Your task to perform on an android device: remove spam from my inbox in the gmail app Image 0: 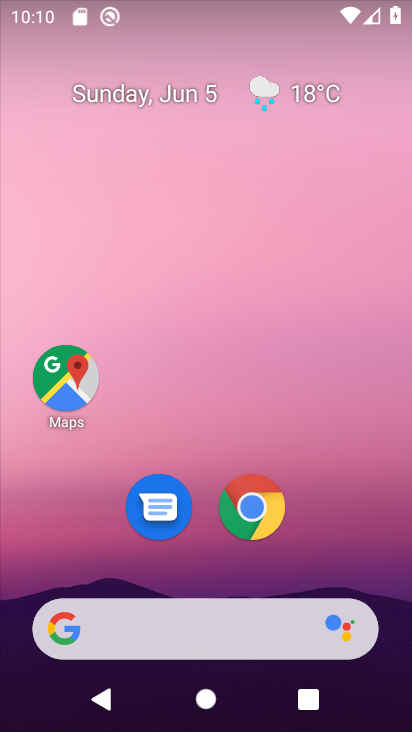
Step 0: drag from (204, 592) to (296, 2)
Your task to perform on an android device: remove spam from my inbox in the gmail app Image 1: 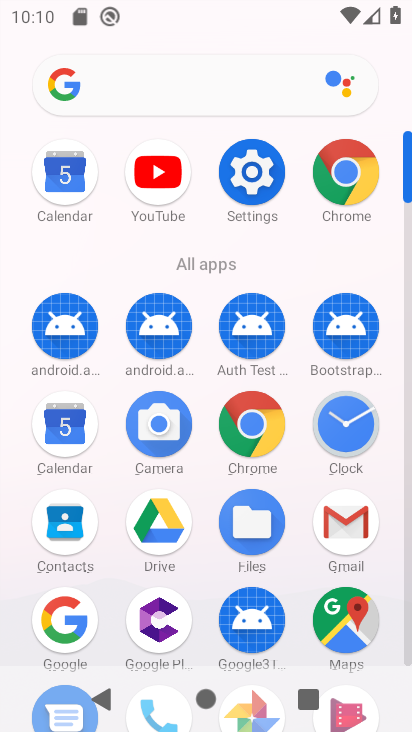
Step 1: click (369, 531)
Your task to perform on an android device: remove spam from my inbox in the gmail app Image 2: 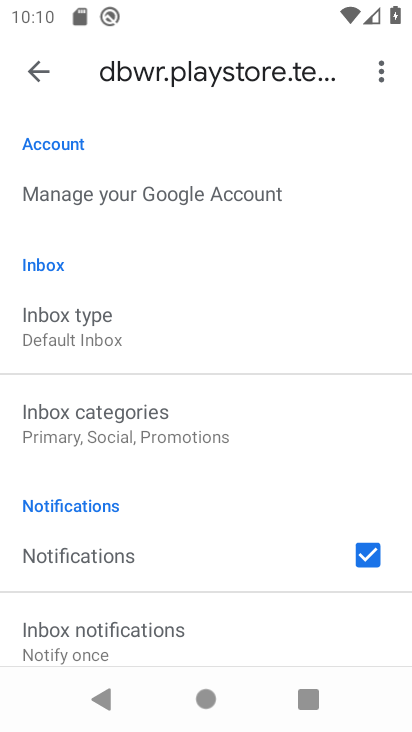
Step 2: click (33, 76)
Your task to perform on an android device: remove spam from my inbox in the gmail app Image 3: 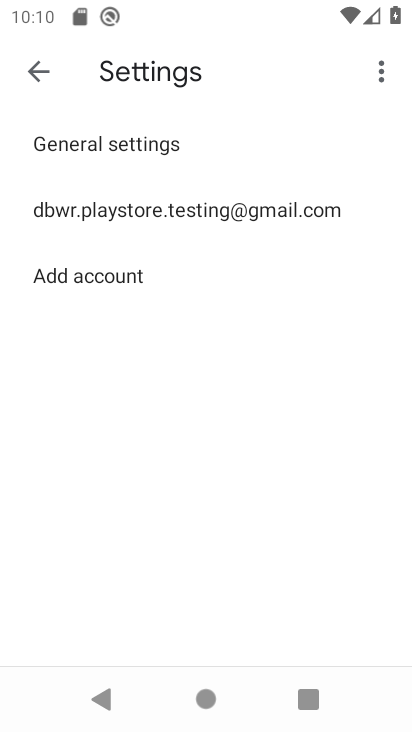
Step 3: click (32, 66)
Your task to perform on an android device: remove spam from my inbox in the gmail app Image 4: 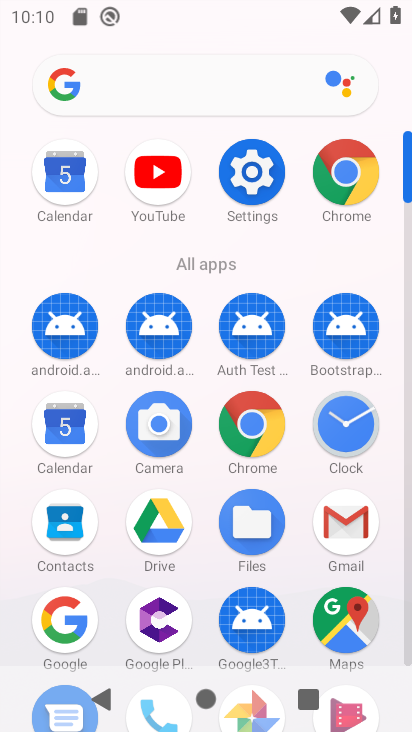
Step 4: click (350, 513)
Your task to perform on an android device: remove spam from my inbox in the gmail app Image 5: 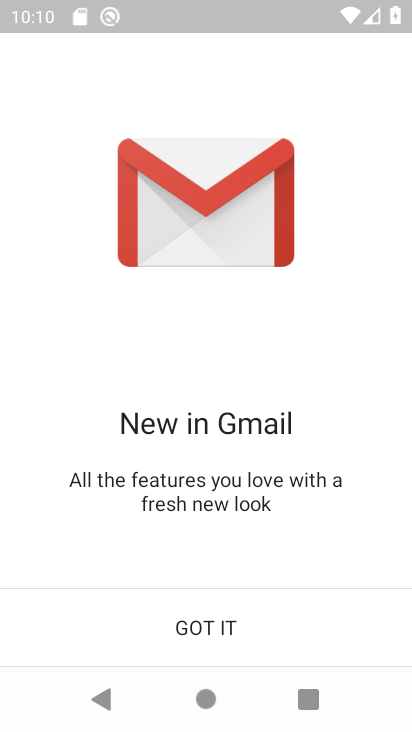
Step 5: click (278, 603)
Your task to perform on an android device: remove spam from my inbox in the gmail app Image 6: 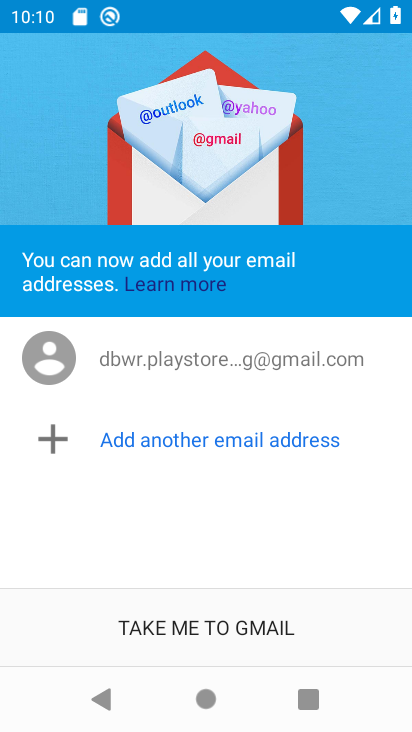
Step 6: click (268, 633)
Your task to perform on an android device: remove spam from my inbox in the gmail app Image 7: 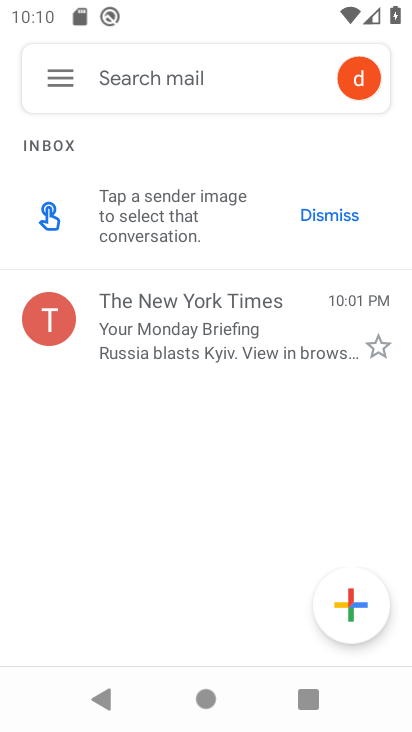
Step 7: click (47, 78)
Your task to perform on an android device: remove spam from my inbox in the gmail app Image 8: 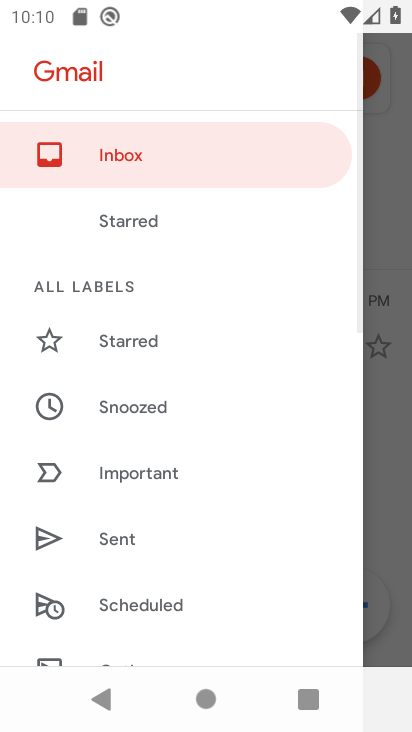
Step 8: drag from (124, 534) to (215, 197)
Your task to perform on an android device: remove spam from my inbox in the gmail app Image 9: 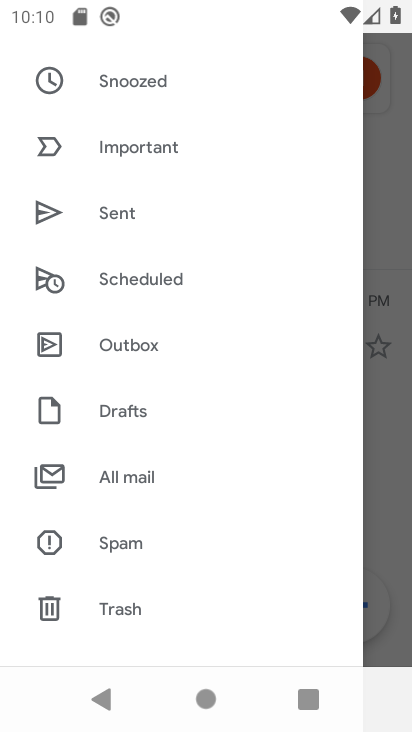
Step 9: click (142, 542)
Your task to perform on an android device: remove spam from my inbox in the gmail app Image 10: 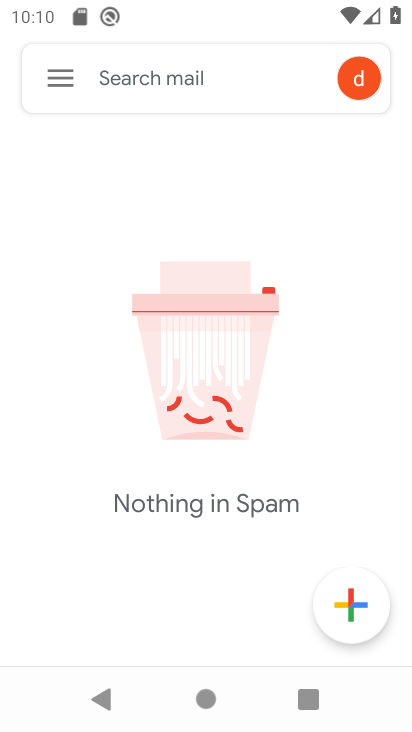
Step 10: task complete